Your task to perform on an android device: turn off location Image 0: 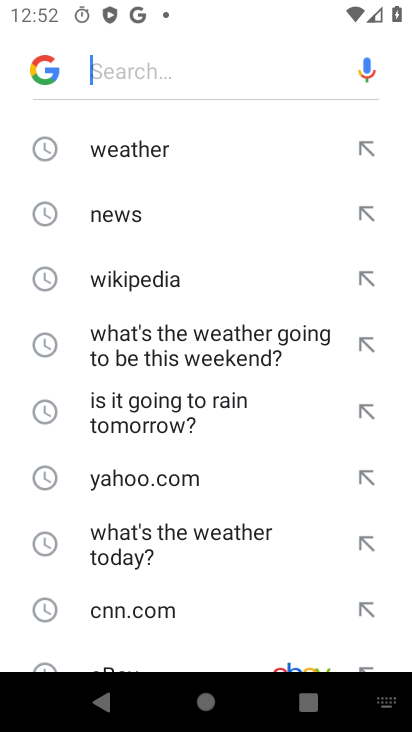
Step 0: press home button
Your task to perform on an android device: turn off location Image 1: 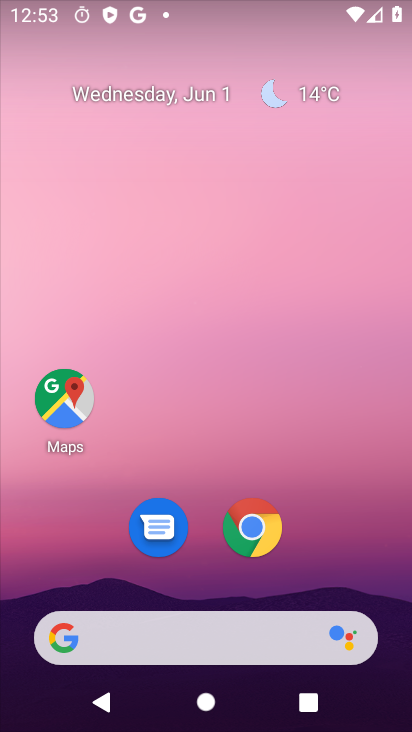
Step 1: drag from (218, 654) to (403, 30)
Your task to perform on an android device: turn off location Image 2: 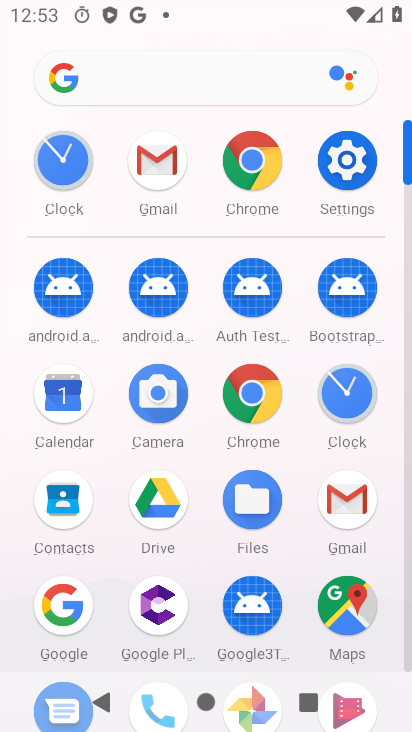
Step 2: click (354, 179)
Your task to perform on an android device: turn off location Image 3: 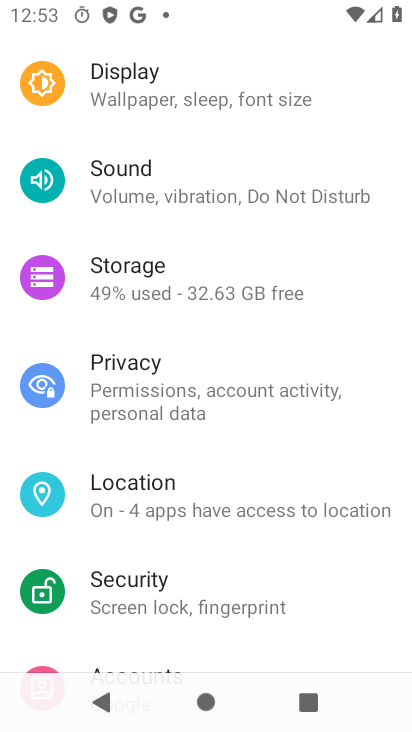
Step 3: click (149, 488)
Your task to perform on an android device: turn off location Image 4: 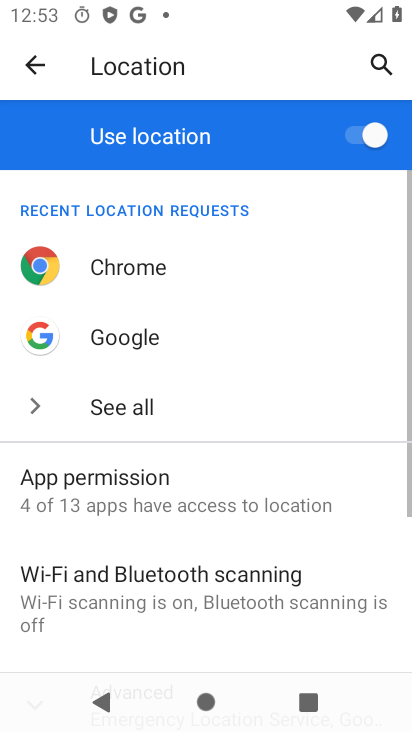
Step 4: click (345, 125)
Your task to perform on an android device: turn off location Image 5: 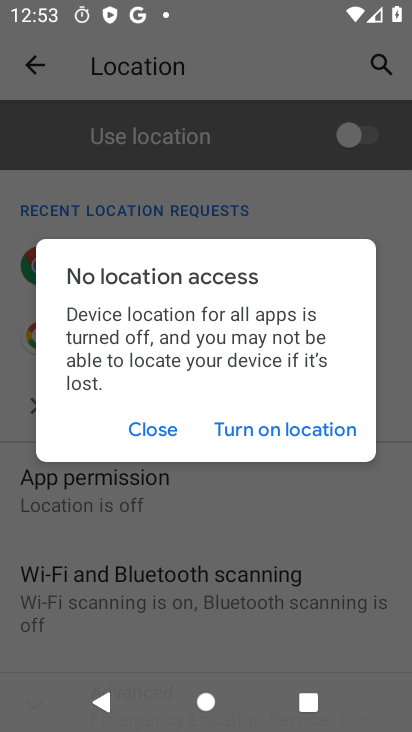
Step 5: click (161, 428)
Your task to perform on an android device: turn off location Image 6: 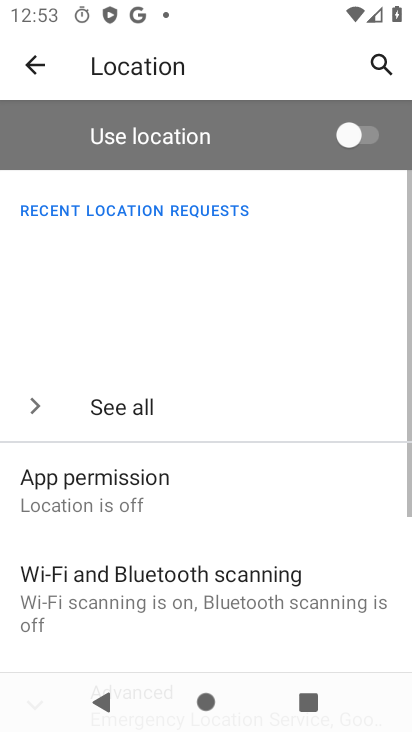
Step 6: task complete